Your task to perform on an android device: delete browsing data in the chrome app Image 0: 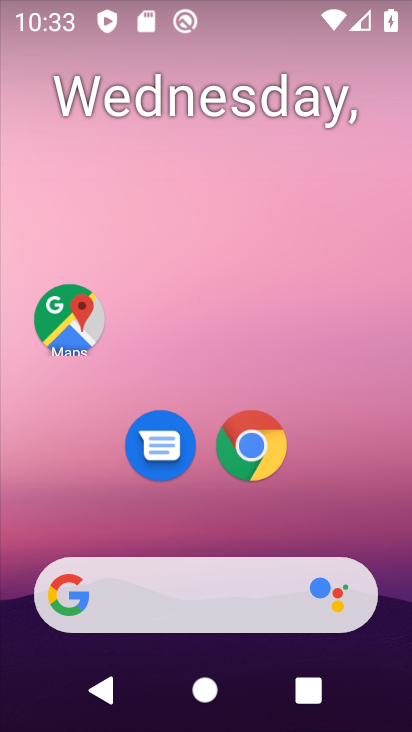
Step 0: click (250, 450)
Your task to perform on an android device: delete browsing data in the chrome app Image 1: 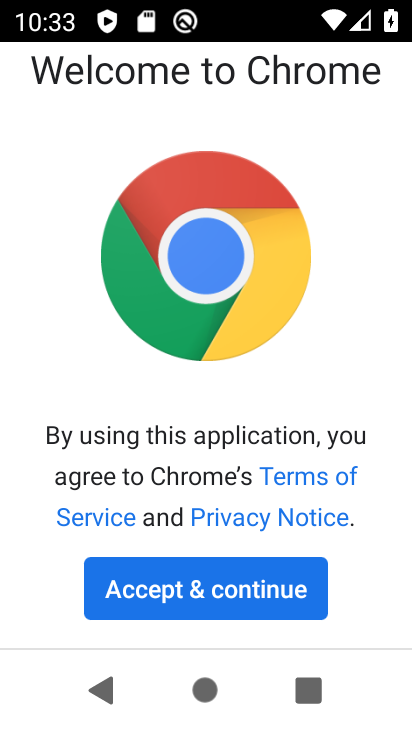
Step 1: click (216, 581)
Your task to perform on an android device: delete browsing data in the chrome app Image 2: 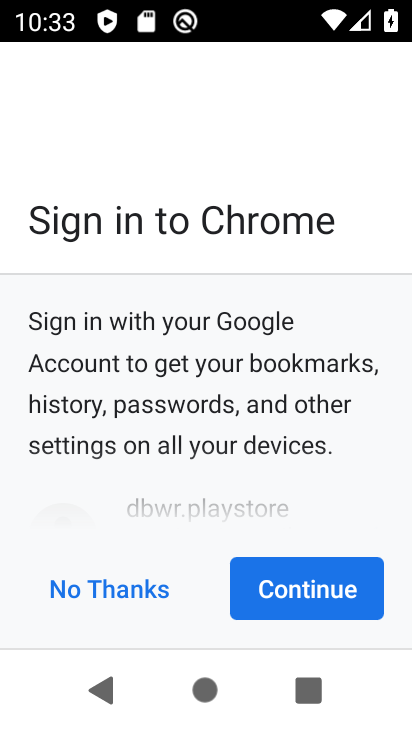
Step 2: click (318, 575)
Your task to perform on an android device: delete browsing data in the chrome app Image 3: 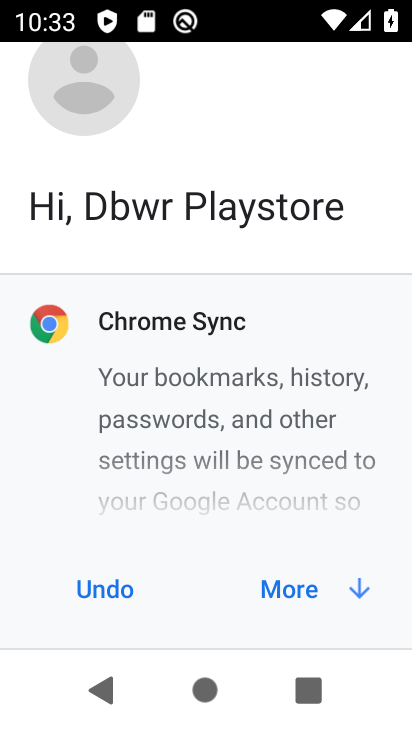
Step 3: click (264, 589)
Your task to perform on an android device: delete browsing data in the chrome app Image 4: 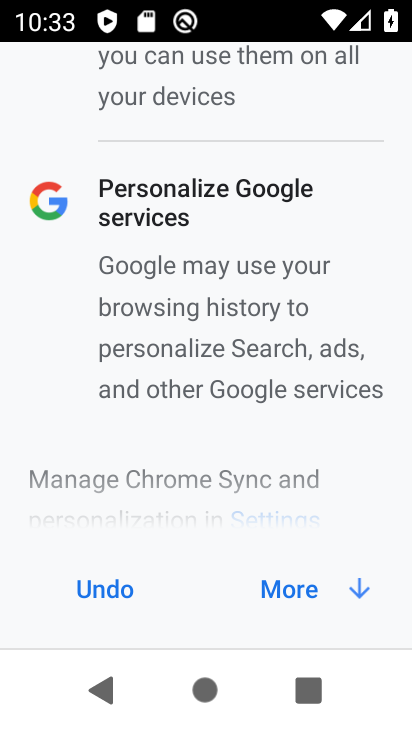
Step 4: click (260, 580)
Your task to perform on an android device: delete browsing data in the chrome app Image 5: 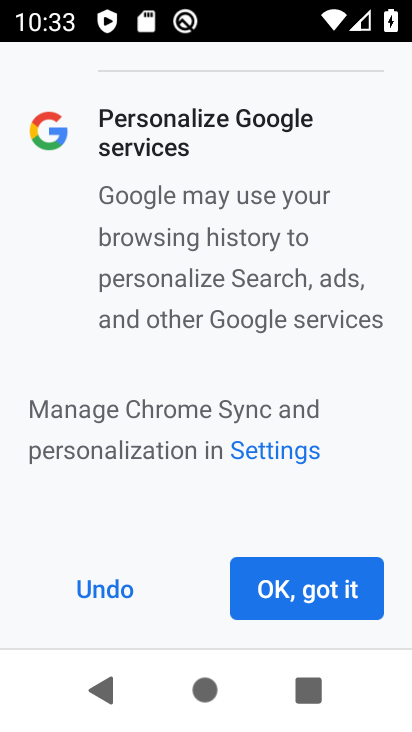
Step 5: click (313, 592)
Your task to perform on an android device: delete browsing data in the chrome app Image 6: 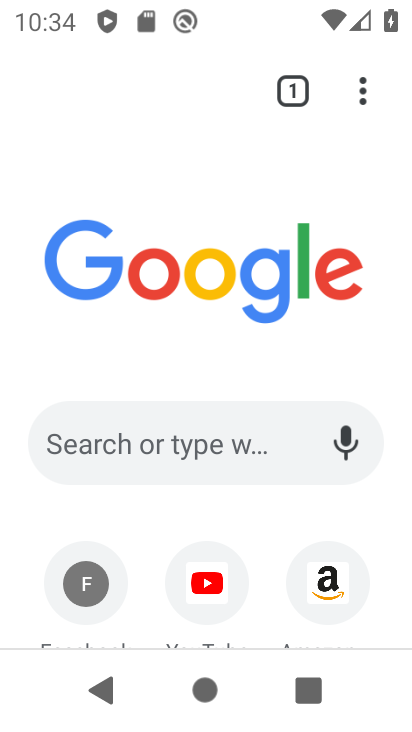
Step 6: click (365, 96)
Your task to perform on an android device: delete browsing data in the chrome app Image 7: 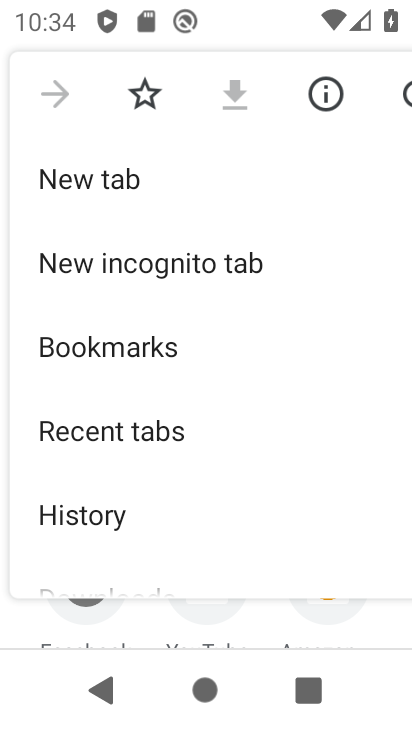
Step 7: click (73, 511)
Your task to perform on an android device: delete browsing data in the chrome app Image 8: 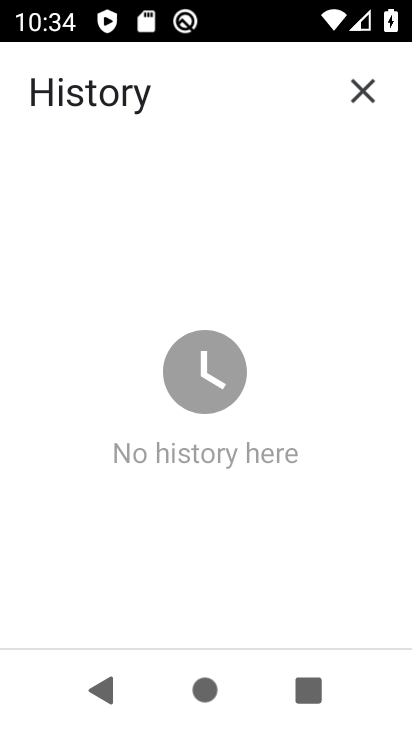
Step 8: task complete